Your task to perform on an android device: Open the stopwatch Image 0: 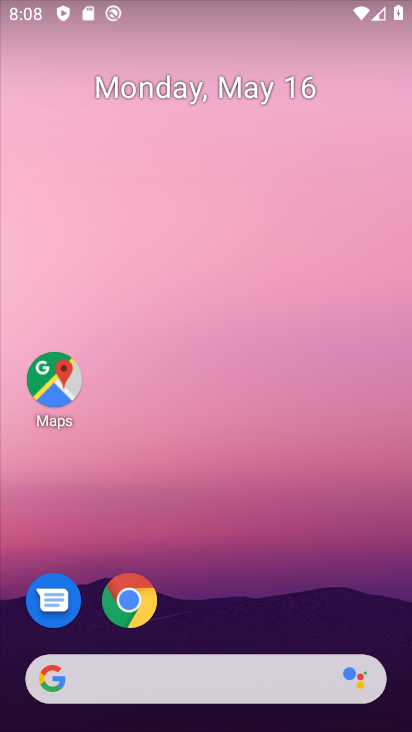
Step 0: drag from (236, 618) to (264, 45)
Your task to perform on an android device: Open the stopwatch Image 1: 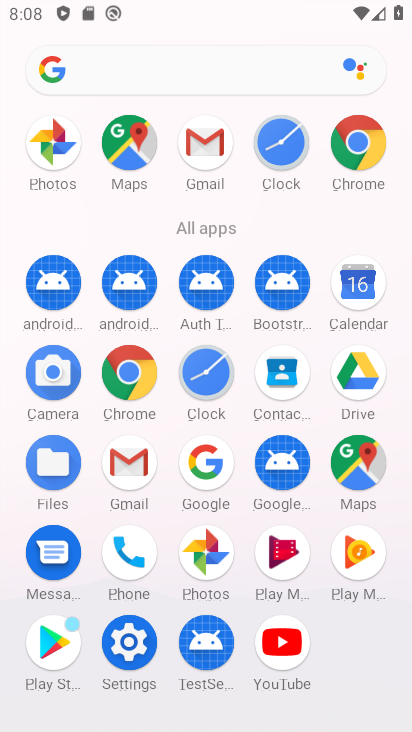
Step 1: click (205, 380)
Your task to perform on an android device: Open the stopwatch Image 2: 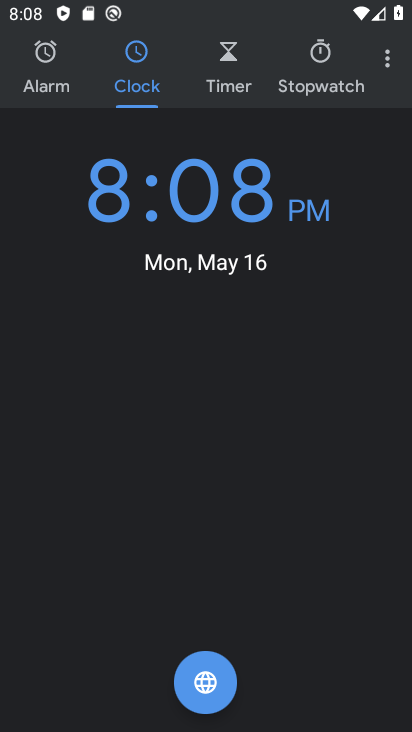
Step 2: click (328, 79)
Your task to perform on an android device: Open the stopwatch Image 3: 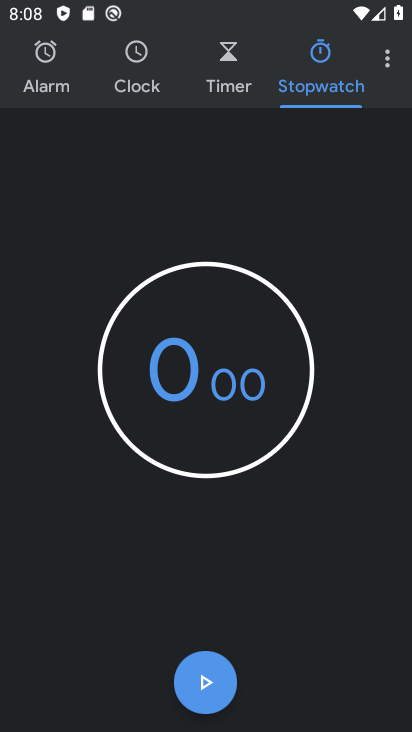
Step 3: task complete